Your task to perform on an android device: add a label to a message in the gmail app Image 0: 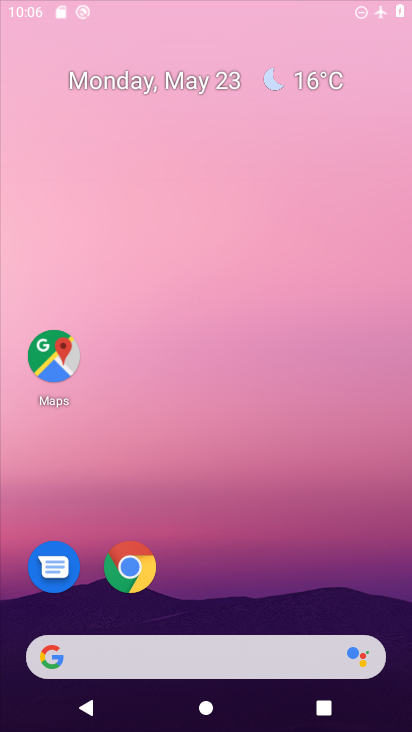
Step 0: click (260, 107)
Your task to perform on an android device: add a label to a message in the gmail app Image 1: 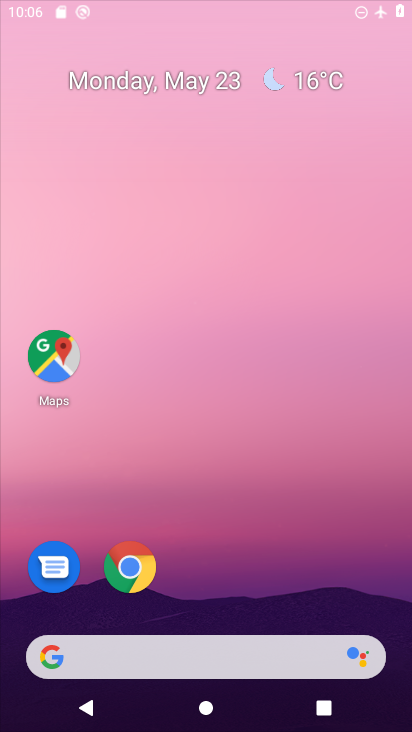
Step 1: drag from (205, 509) to (199, 139)
Your task to perform on an android device: add a label to a message in the gmail app Image 2: 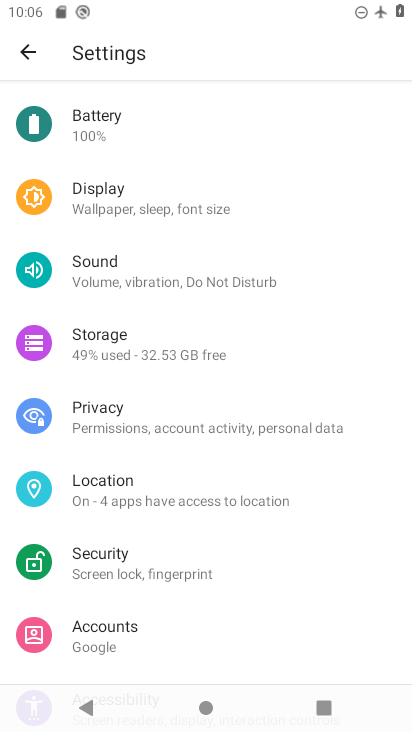
Step 2: press home button
Your task to perform on an android device: add a label to a message in the gmail app Image 3: 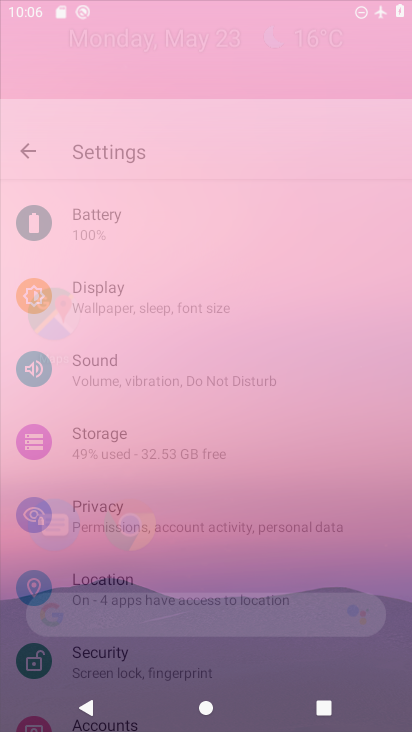
Step 3: drag from (165, 614) to (178, 0)
Your task to perform on an android device: add a label to a message in the gmail app Image 4: 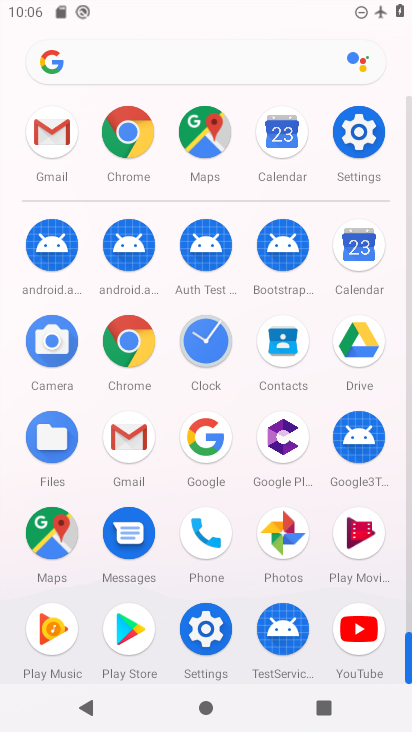
Step 4: click (133, 434)
Your task to perform on an android device: add a label to a message in the gmail app Image 5: 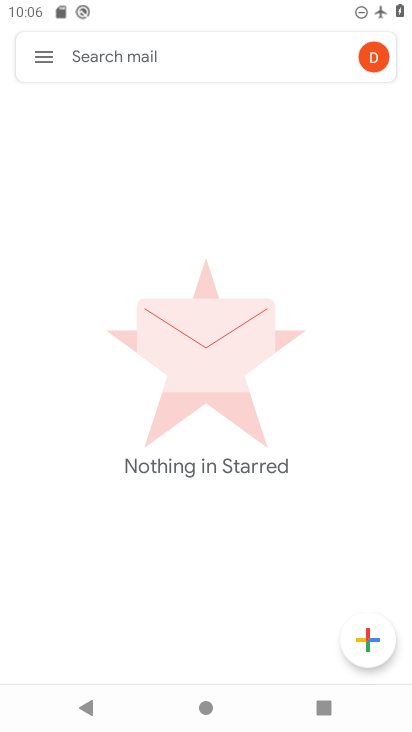
Step 5: click (42, 48)
Your task to perform on an android device: add a label to a message in the gmail app Image 6: 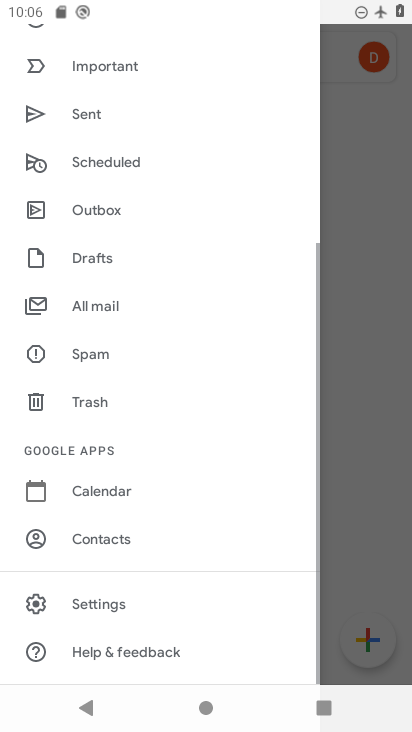
Step 6: drag from (139, 527) to (151, 145)
Your task to perform on an android device: add a label to a message in the gmail app Image 7: 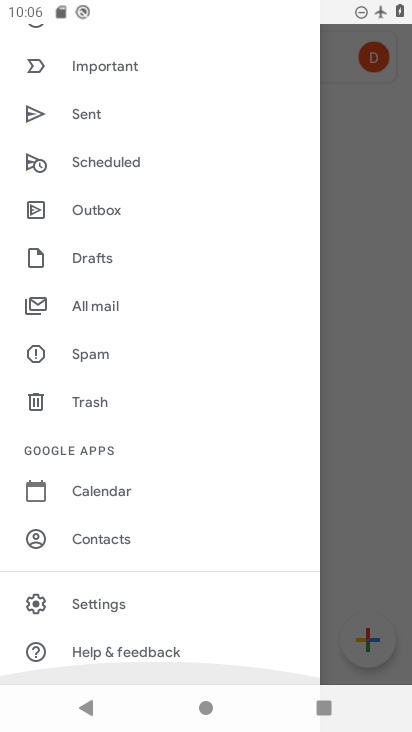
Step 7: drag from (152, 101) to (189, 725)
Your task to perform on an android device: add a label to a message in the gmail app Image 8: 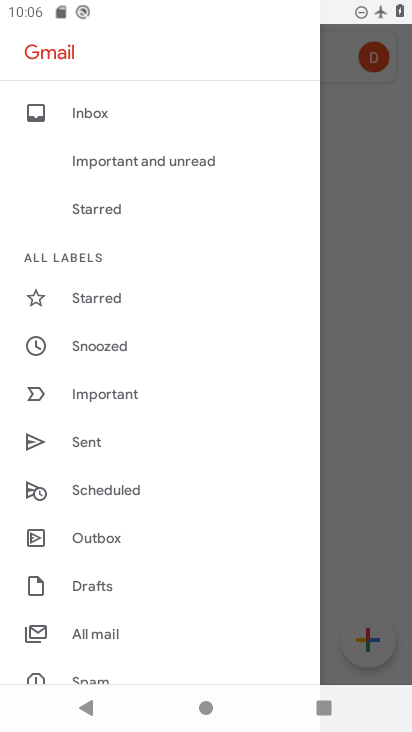
Step 8: drag from (136, 453) to (181, 91)
Your task to perform on an android device: add a label to a message in the gmail app Image 9: 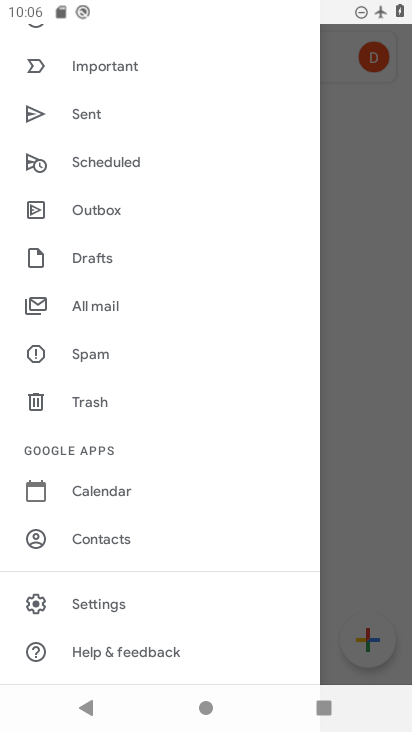
Step 9: drag from (156, 500) to (198, 159)
Your task to perform on an android device: add a label to a message in the gmail app Image 10: 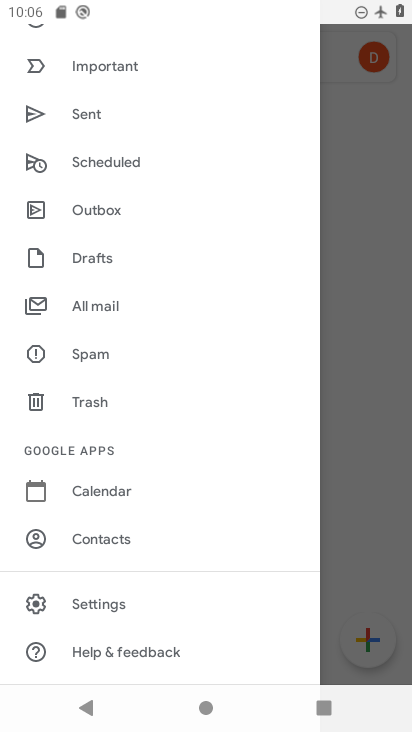
Step 10: drag from (169, 101) to (183, 588)
Your task to perform on an android device: add a label to a message in the gmail app Image 11: 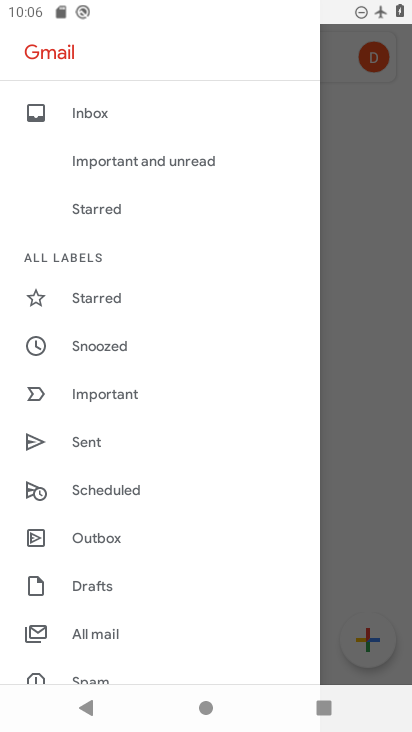
Step 11: click (376, 312)
Your task to perform on an android device: add a label to a message in the gmail app Image 12: 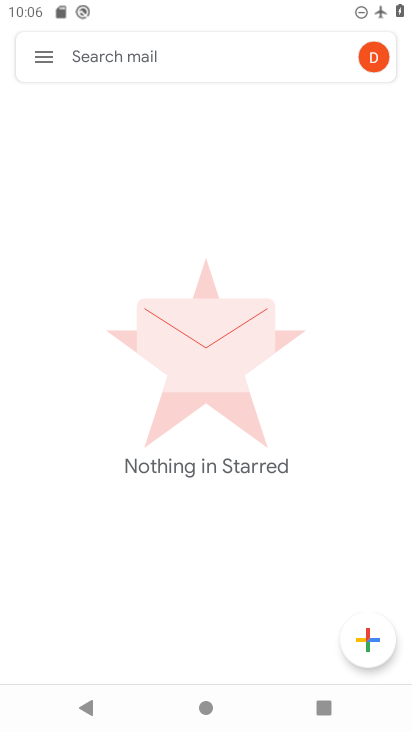
Step 12: task complete